Your task to perform on an android device: allow cookies in the chrome app Image 0: 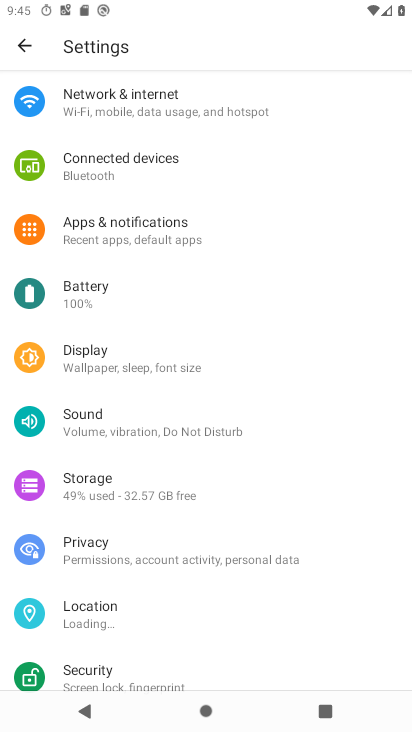
Step 0: press home button
Your task to perform on an android device: allow cookies in the chrome app Image 1: 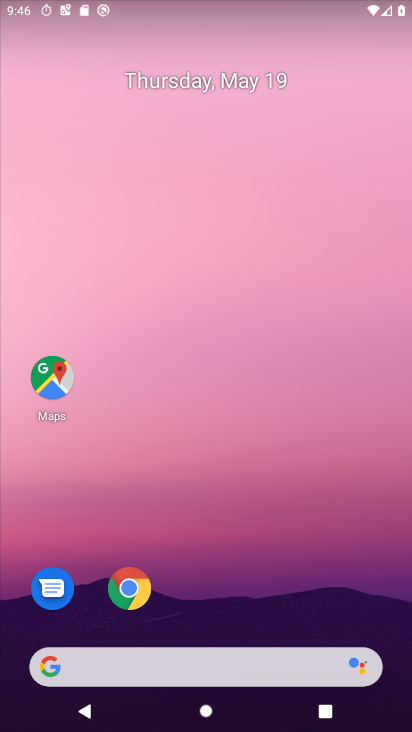
Step 1: click (135, 596)
Your task to perform on an android device: allow cookies in the chrome app Image 2: 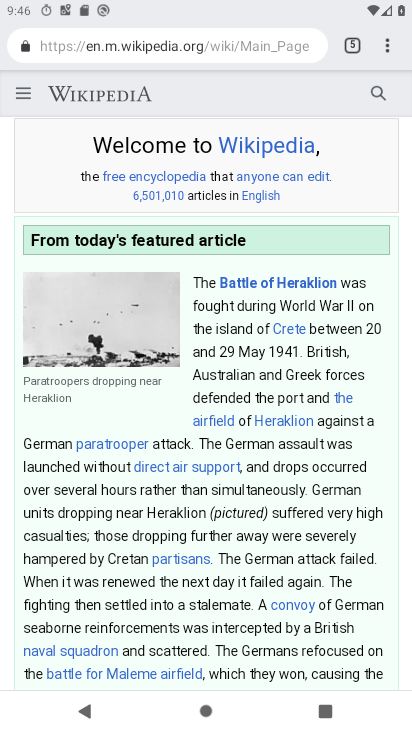
Step 2: click (385, 43)
Your task to perform on an android device: allow cookies in the chrome app Image 3: 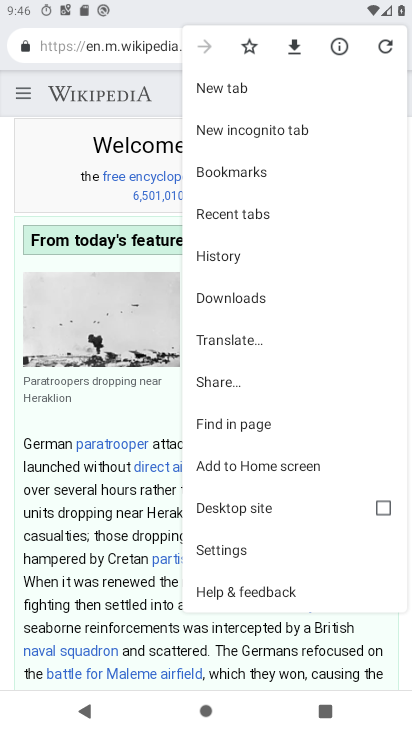
Step 3: click (236, 549)
Your task to perform on an android device: allow cookies in the chrome app Image 4: 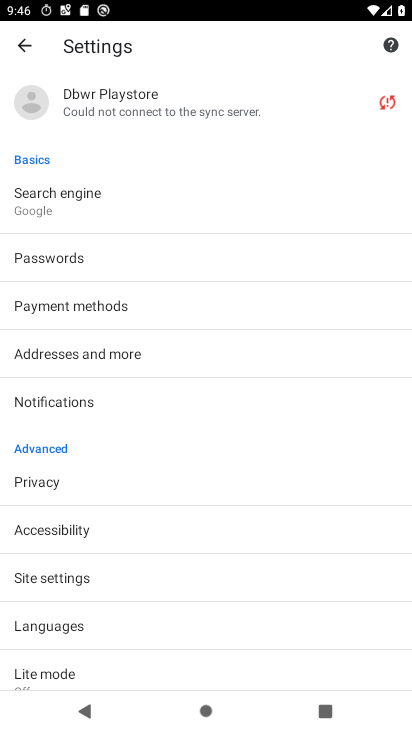
Step 4: click (80, 583)
Your task to perform on an android device: allow cookies in the chrome app Image 5: 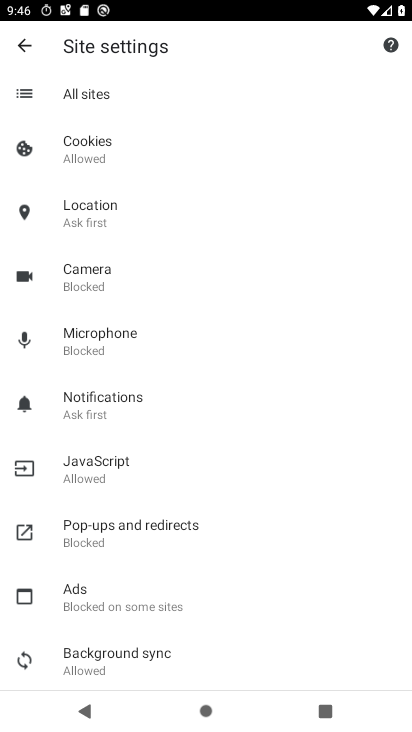
Step 5: click (87, 142)
Your task to perform on an android device: allow cookies in the chrome app Image 6: 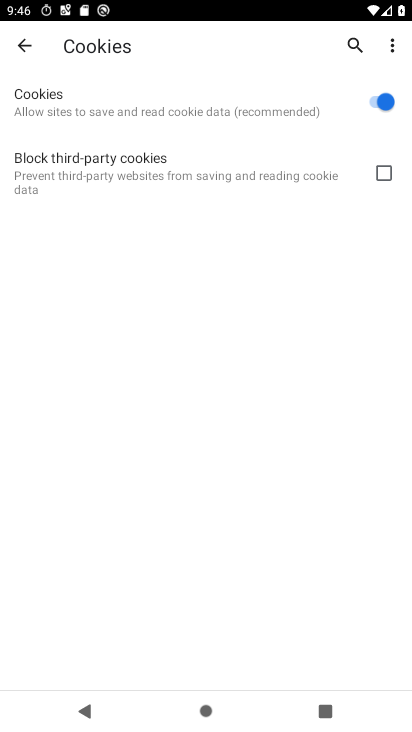
Step 6: task complete